Your task to perform on an android device: toggle airplane mode Image 0: 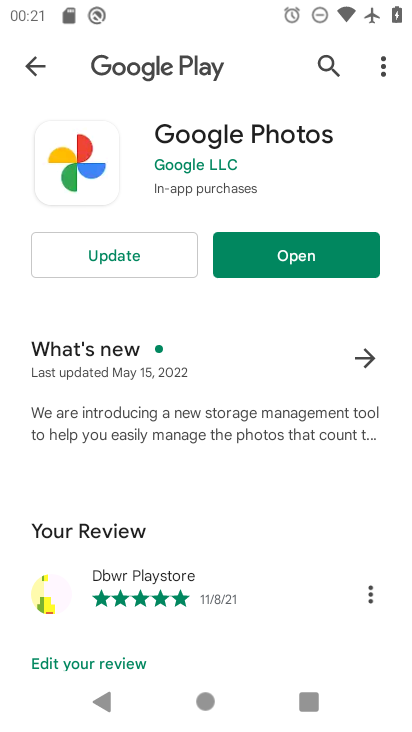
Step 0: press home button
Your task to perform on an android device: toggle airplane mode Image 1: 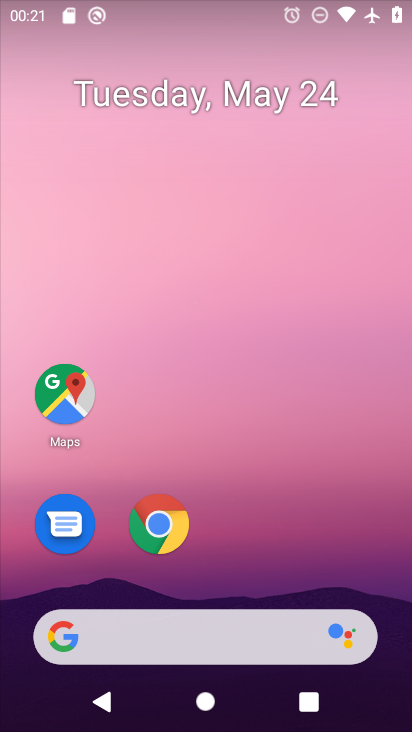
Step 1: drag from (207, 578) to (210, 174)
Your task to perform on an android device: toggle airplane mode Image 2: 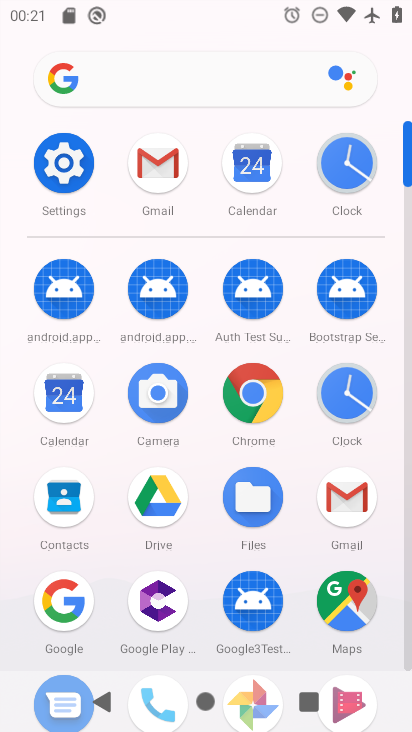
Step 2: click (80, 164)
Your task to perform on an android device: toggle airplane mode Image 3: 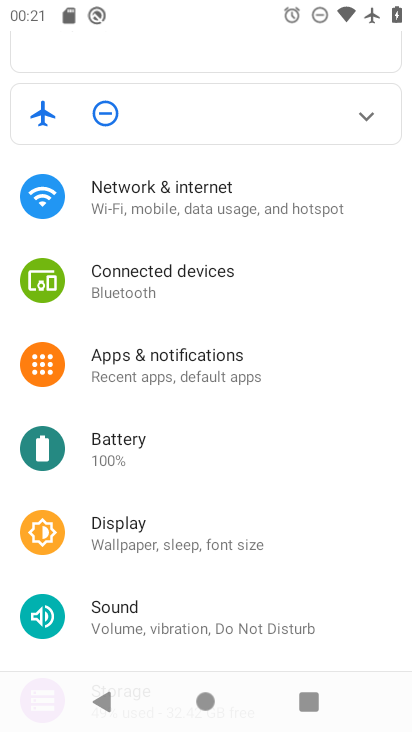
Step 3: click (161, 231)
Your task to perform on an android device: toggle airplane mode Image 4: 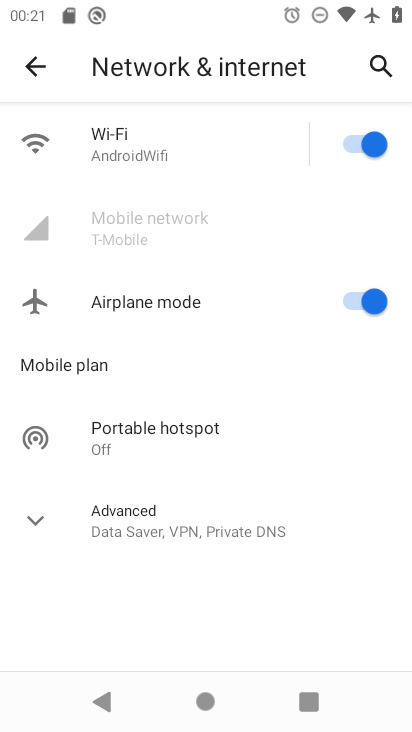
Step 4: click (346, 304)
Your task to perform on an android device: toggle airplane mode Image 5: 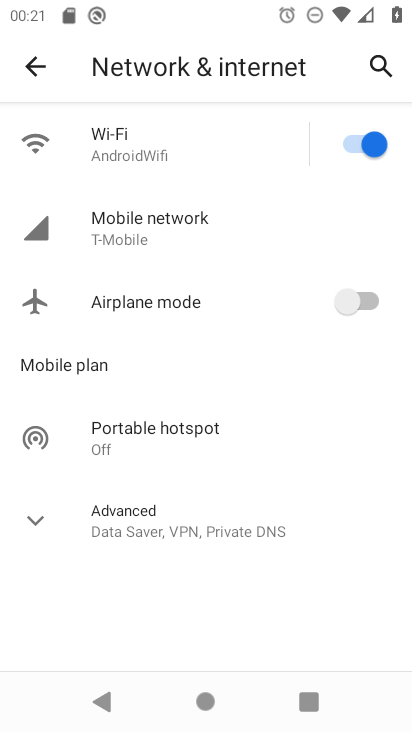
Step 5: task complete